Your task to perform on an android device: toggle location history Image 0: 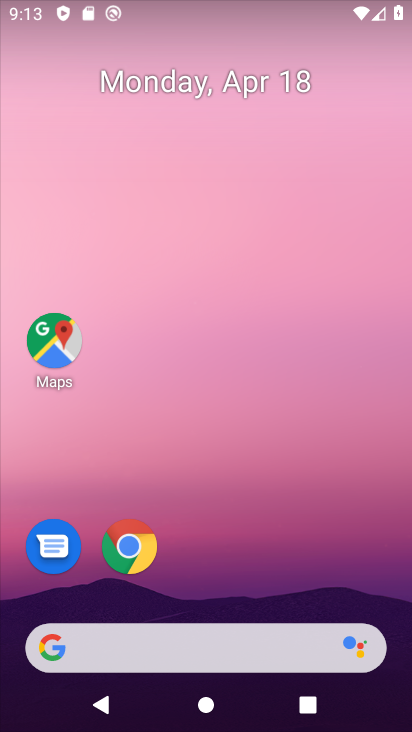
Step 0: drag from (333, 521) to (281, 78)
Your task to perform on an android device: toggle location history Image 1: 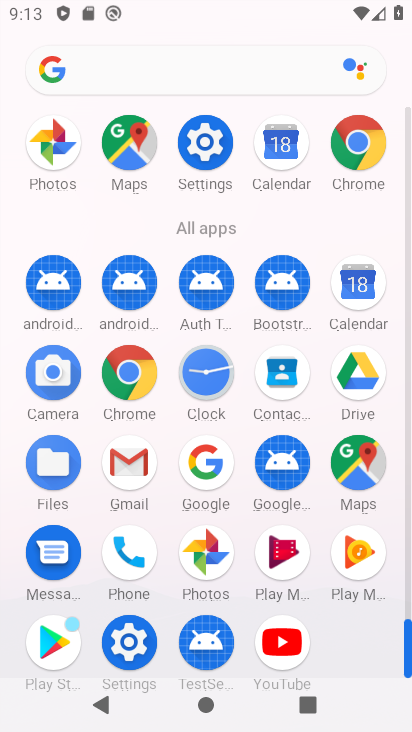
Step 1: click (202, 133)
Your task to perform on an android device: toggle location history Image 2: 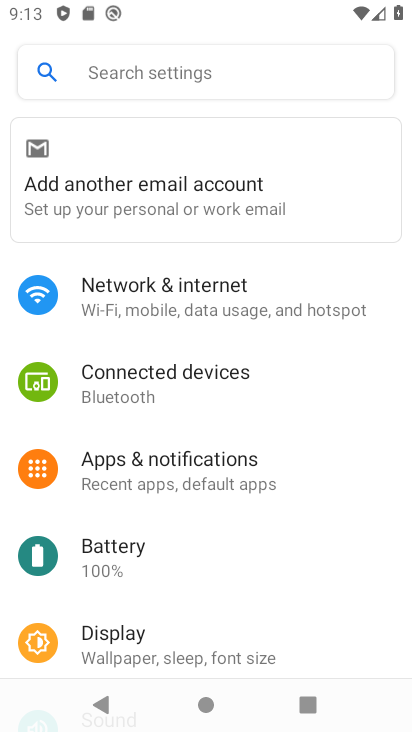
Step 2: drag from (240, 590) to (215, 378)
Your task to perform on an android device: toggle location history Image 3: 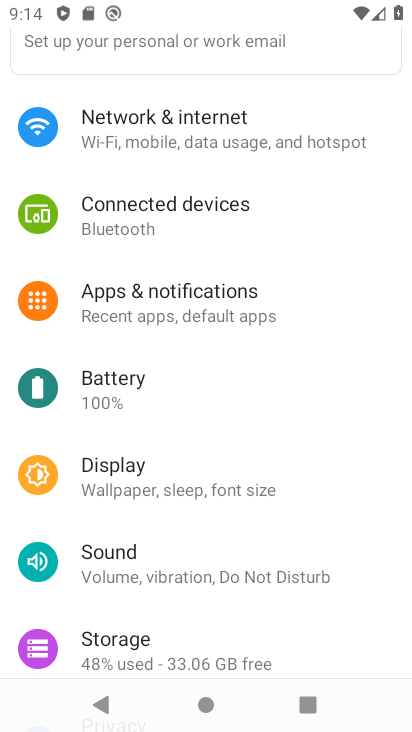
Step 3: drag from (224, 566) to (199, 221)
Your task to perform on an android device: toggle location history Image 4: 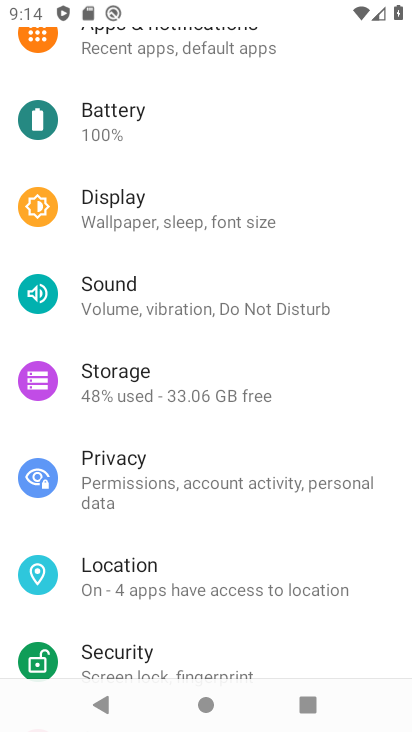
Step 4: click (166, 574)
Your task to perform on an android device: toggle location history Image 5: 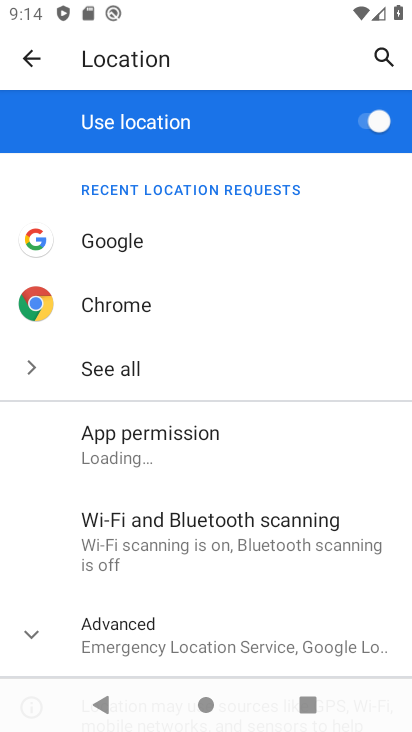
Step 5: drag from (235, 594) to (207, 308)
Your task to perform on an android device: toggle location history Image 6: 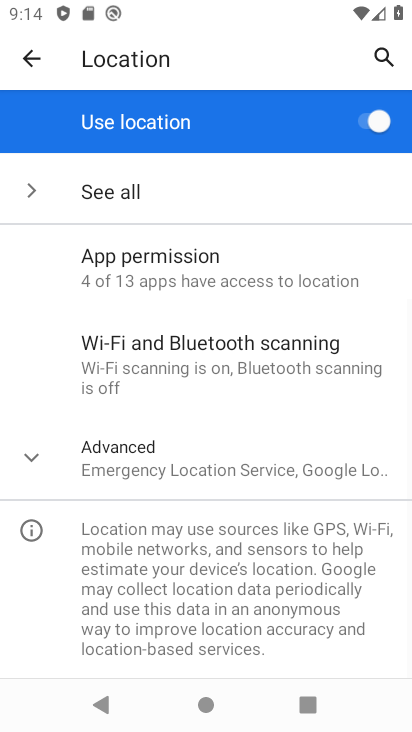
Step 6: click (148, 467)
Your task to perform on an android device: toggle location history Image 7: 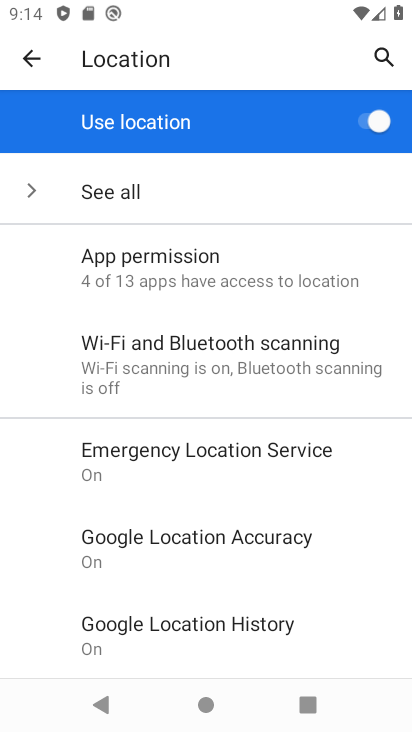
Step 7: click (212, 637)
Your task to perform on an android device: toggle location history Image 8: 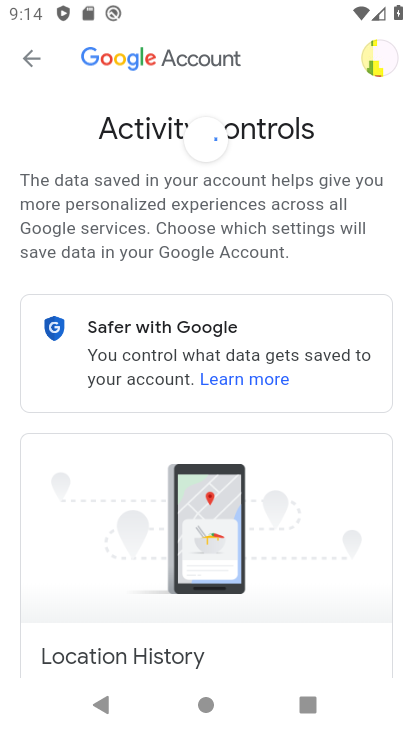
Step 8: drag from (234, 432) to (213, 124)
Your task to perform on an android device: toggle location history Image 9: 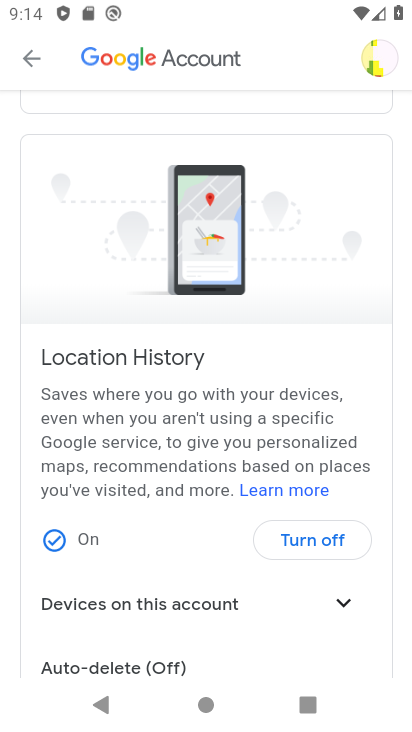
Step 9: click (307, 527)
Your task to perform on an android device: toggle location history Image 10: 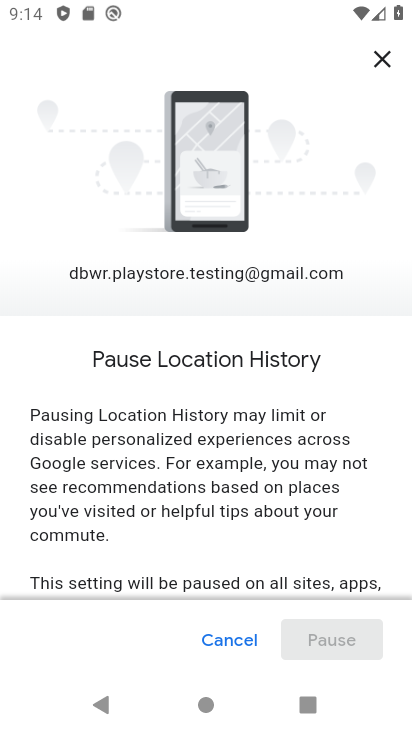
Step 10: drag from (301, 563) to (264, 207)
Your task to perform on an android device: toggle location history Image 11: 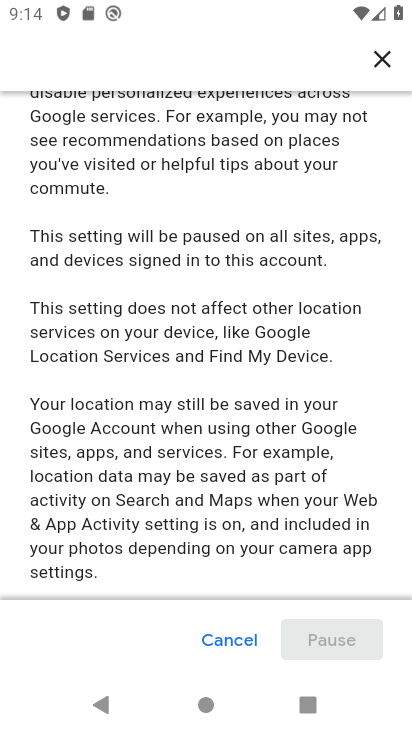
Step 11: drag from (277, 570) to (261, 173)
Your task to perform on an android device: toggle location history Image 12: 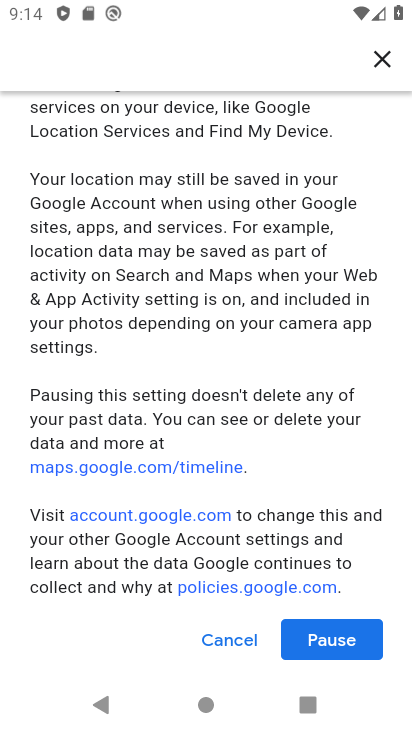
Step 12: click (322, 619)
Your task to perform on an android device: toggle location history Image 13: 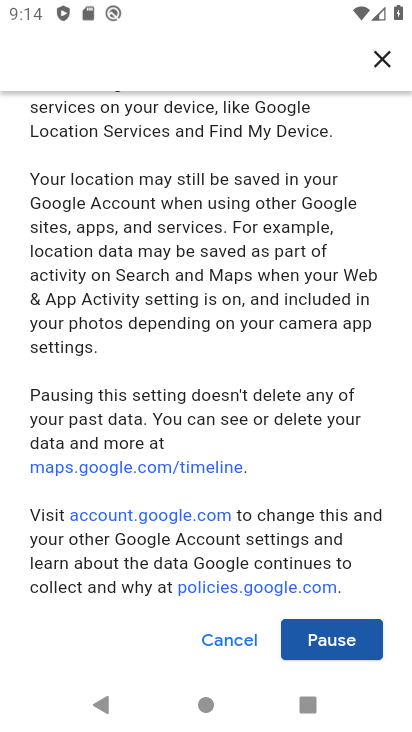
Step 13: click (324, 635)
Your task to perform on an android device: toggle location history Image 14: 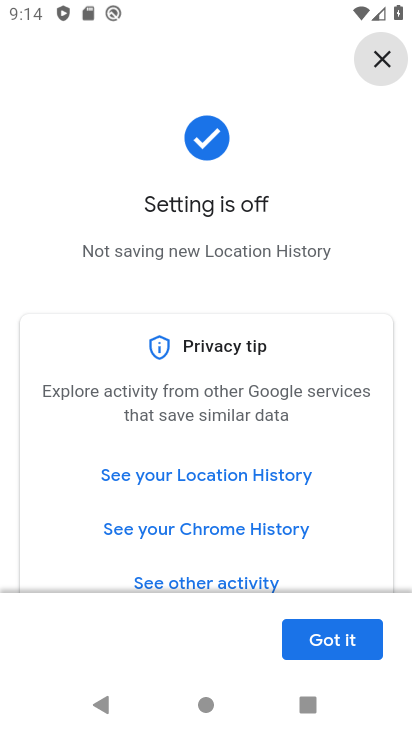
Step 14: click (330, 635)
Your task to perform on an android device: toggle location history Image 15: 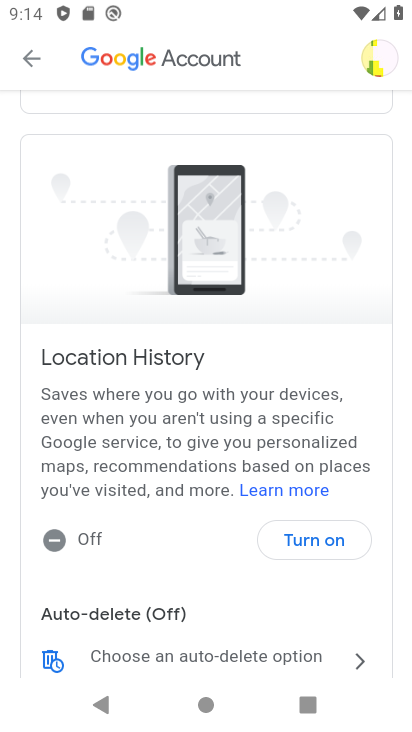
Step 15: task complete